Your task to perform on an android device: Go to notification settings Image 0: 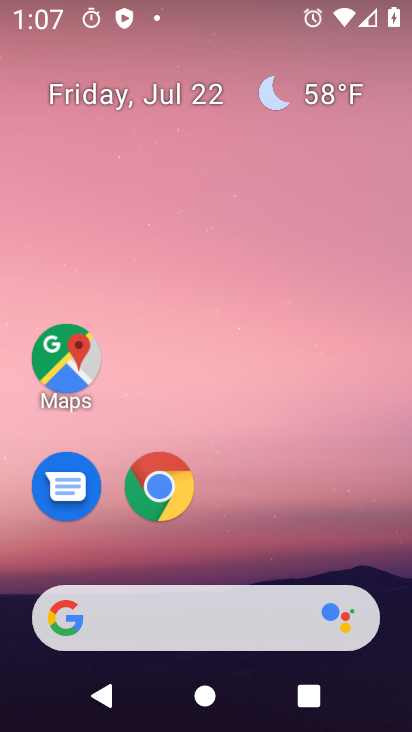
Step 0: press home button
Your task to perform on an android device: Go to notification settings Image 1: 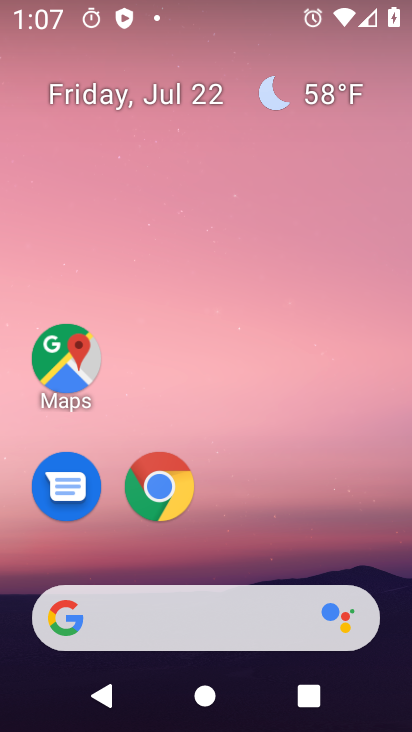
Step 1: drag from (371, 526) to (369, 206)
Your task to perform on an android device: Go to notification settings Image 2: 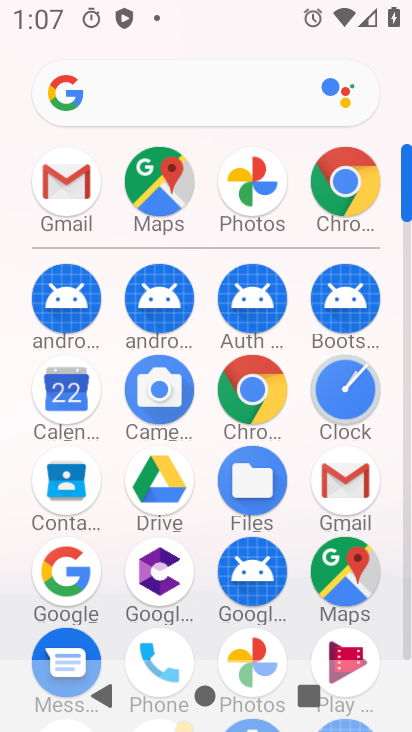
Step 2: drag from (394, 518) to (383, 229)
Your task to perform on an android device: Go to notification settings Image 3: 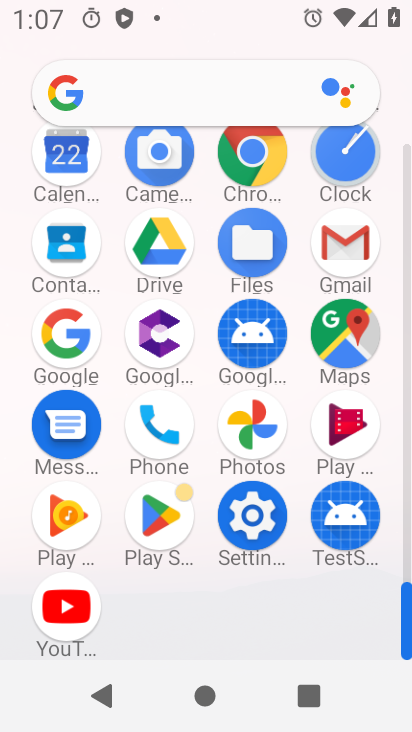
Step 3: click (262, 505)
Your task to perform on an android device: Go to notification settings Image 4: 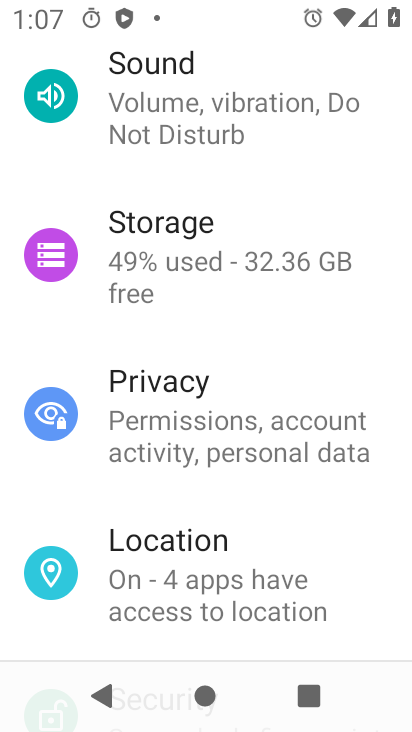
Step 4: drag from (363, 302) to (364, 395)
Your task to perform on an android device: Go to notification settings Image 5: 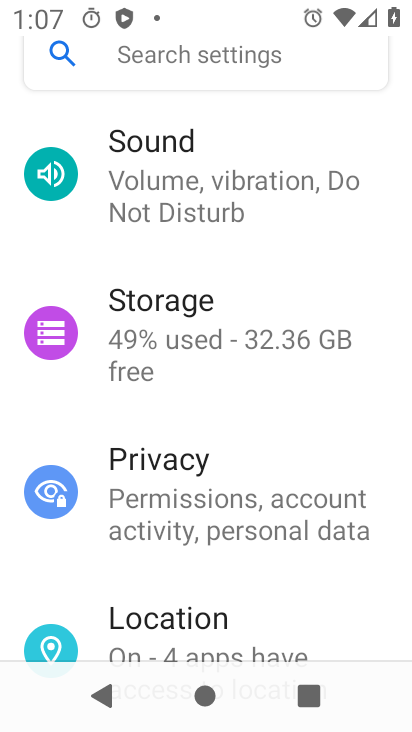
Step 5: drag from (364, 307) to (366, 413)
Your task to perform on an android device: Go to notification settings Image 6: 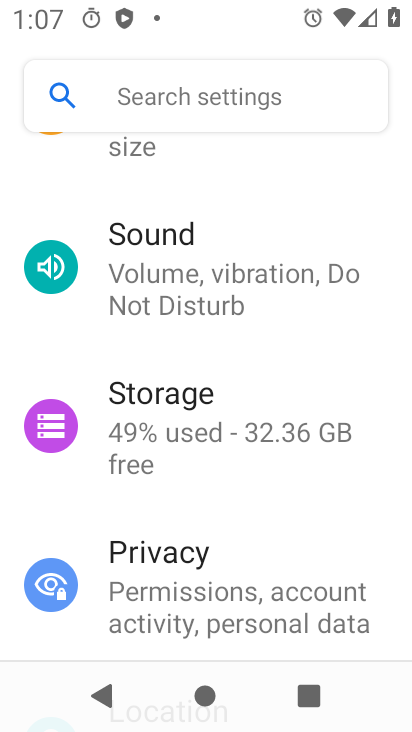
Step 6: drag from (370, 328) to (373, 418)
Your task to perform on an android device: Go to notification settings Image 7: 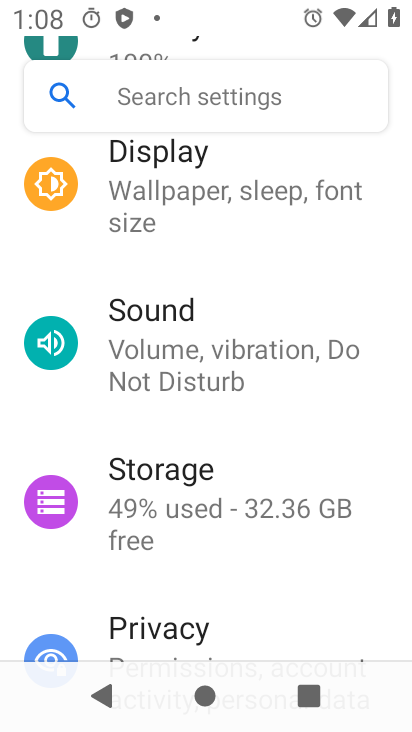
Step 7: drag from (372, 302) to (372, 398)
Your task to perform on an android device: Go to notification settings Image 8: 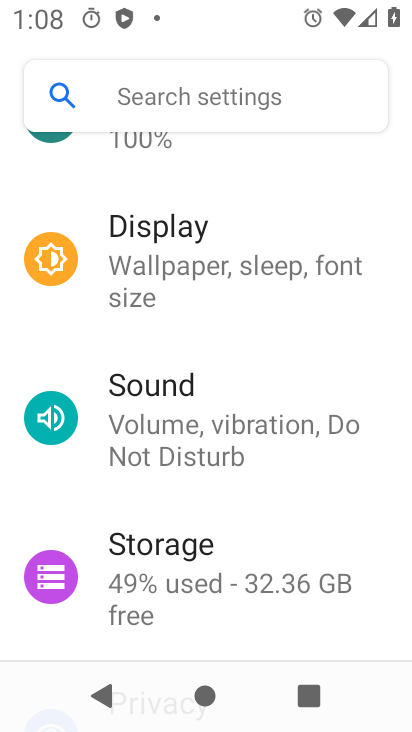
Step 8: drag from (365, 317) to (365, 399)
Your task to perform on an android device: Go to notification settings Image 9: 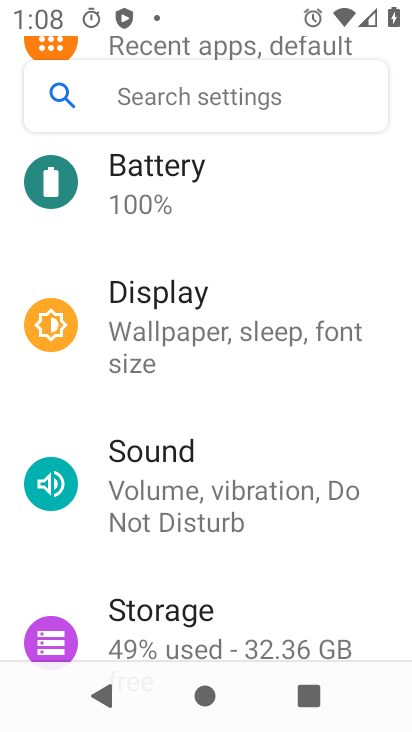
Step 9: drag from (371, 258) to (383, 344)
Your task to perform on an android device: Go to notification settings Image 10: 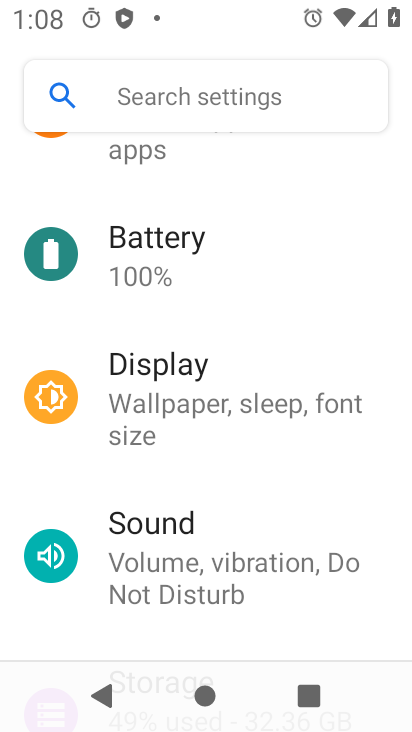
Step 10: drag from (383, 267) to (385, 372)
Your task to perform on an android device: Go to notification settings Image 11: 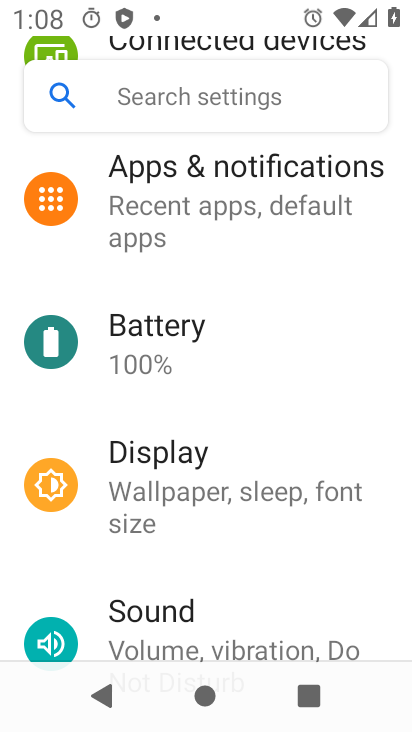
Step 11: drag from (374, 263) to (374, 370)
Your task to perform on an android device: Go to notification settings Image 12: 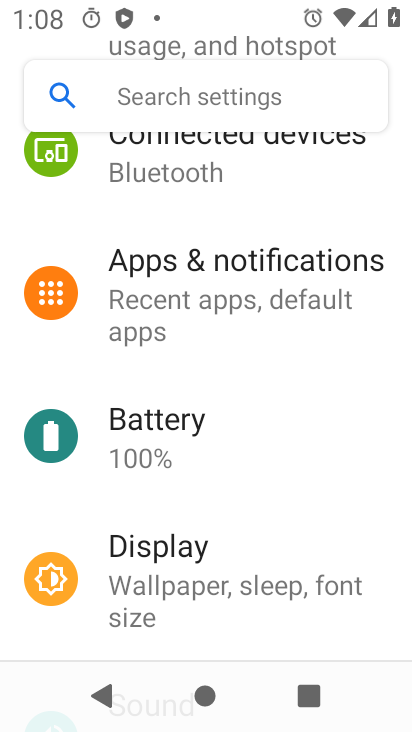
Step 12: drag from (378, 217) to (392, 435)
Your task to perform on an android device: Go to notification settings Image 13: 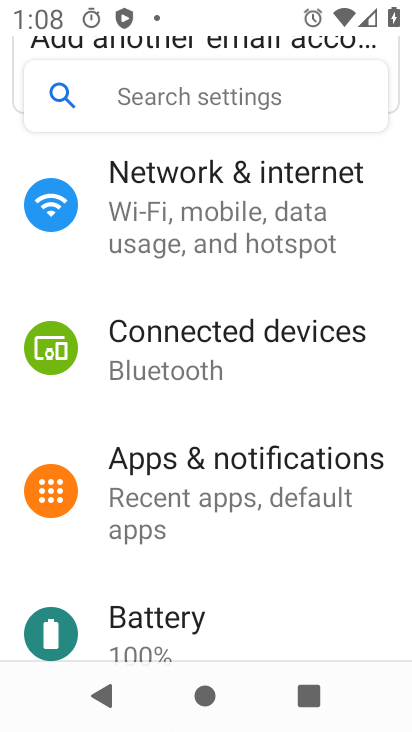
Step 13: drag from (380, 245) to (380, 437)
Your task to perform on an android device: Go to notification settings Image 14: 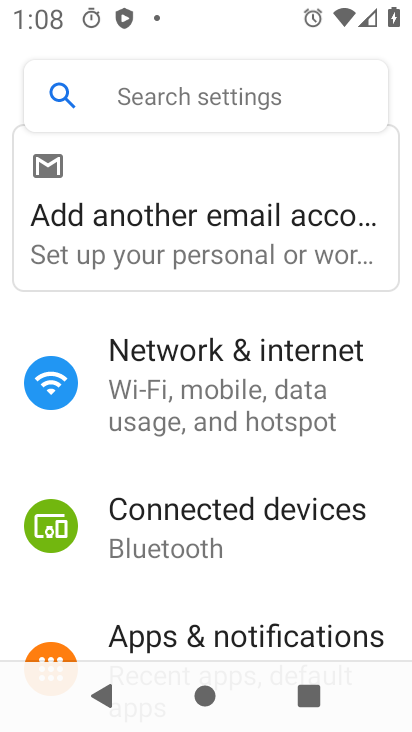
Step 14: drag from (380, 281) to (384, 455)
Your task to perform on an android device: Go to notification settings Image 15: 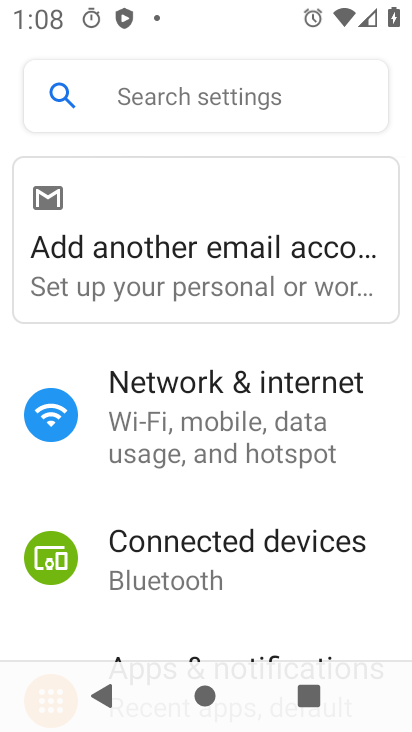
Step 15: drag from (380, 479) to (373, 380)
Your task to perform on an android device: Go to notification settings Image 16: 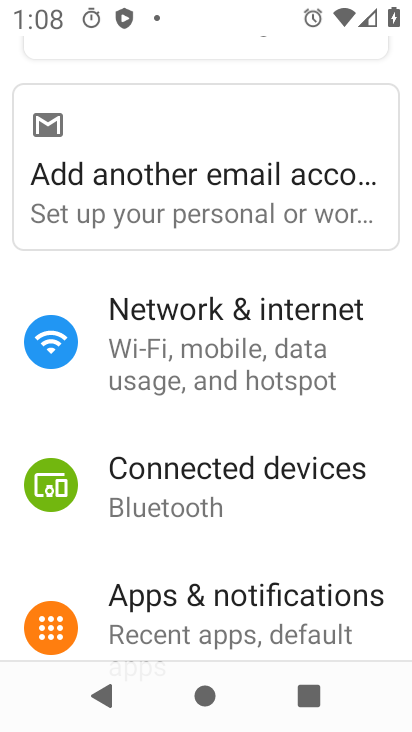
Step 16: drag from (367, 514) to (368, 399)
Your task to perform on an android device: Go to notification settings Image 17: 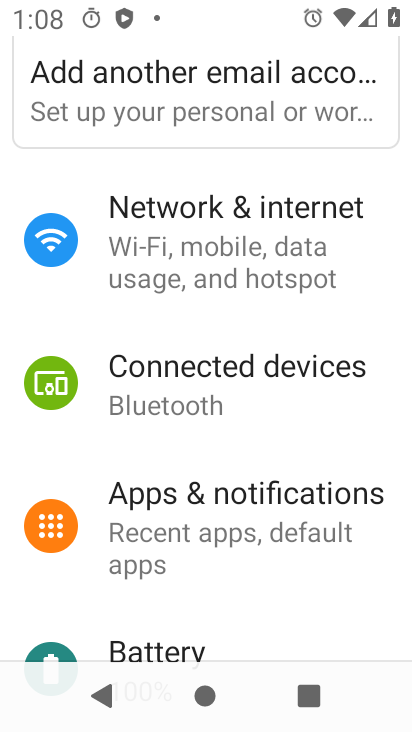
Step 17: drag from (364, 541) to (363, 440)
Your task to perform on an android device: Go to notification settings Image 18: 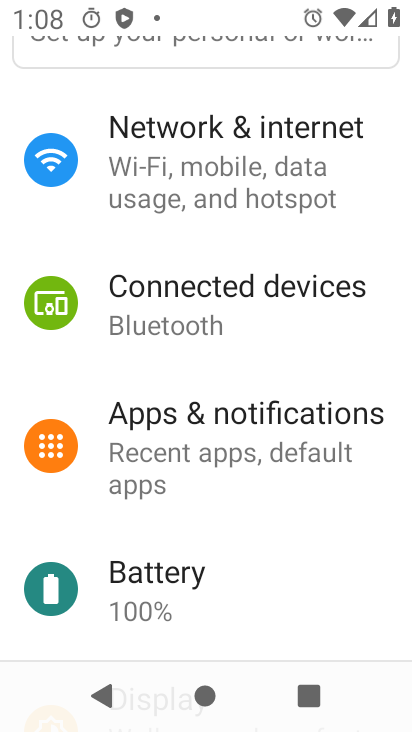
Step 18: click (303, 407)
Your task to perform on an android device: Go to notification settings Image 19: 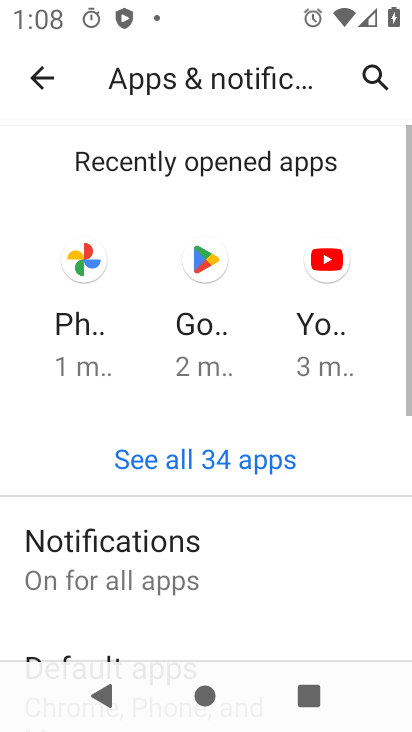
Step 19: click (284, 551)
Your task to perform on an android device: Go to notification settings Image 20: 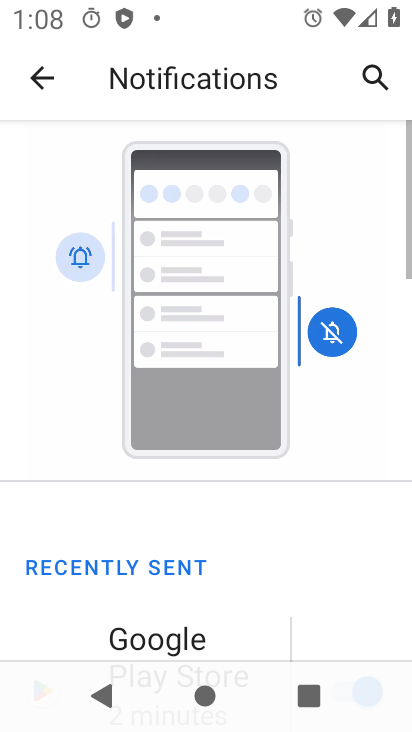
Step 20: task complete